Your task to perform on an android device: toggle translation in the chrome app Image 0: 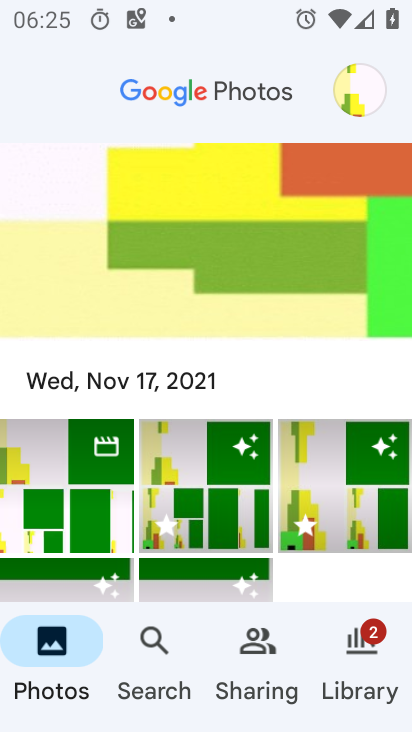
Step 0: press home button
Your task to perform on an android device: toggle translation in the chrome app Image 1: 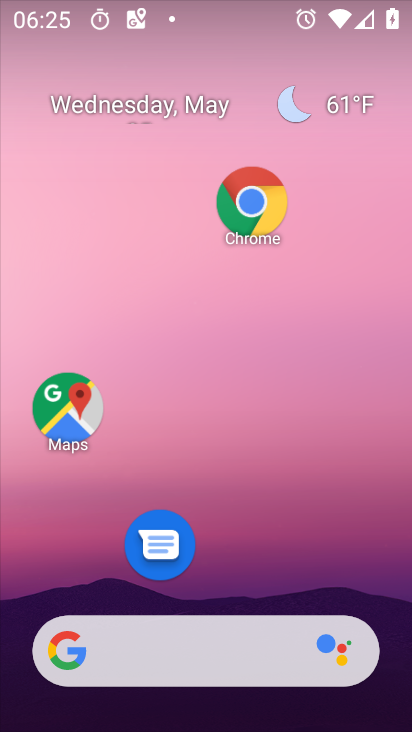
Step 1: drag from (150, 615) to (173, 275)
Your task to perform on an android device: toggle translation in the chrome app Image 2: 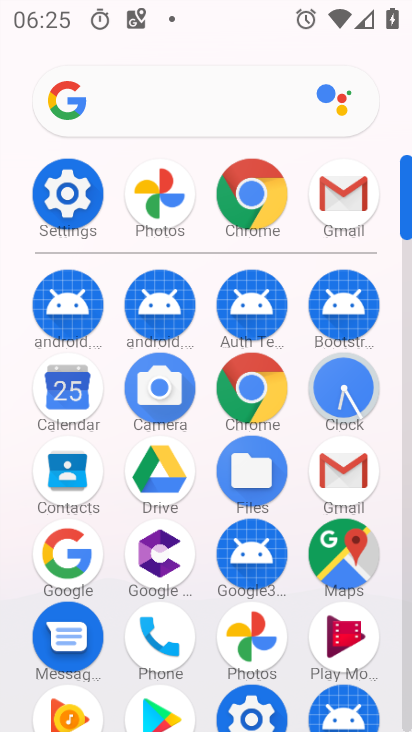
Step 2: click (245, 414)
Your task to perform on an android device: toggle translation in the chrome app Image 3: 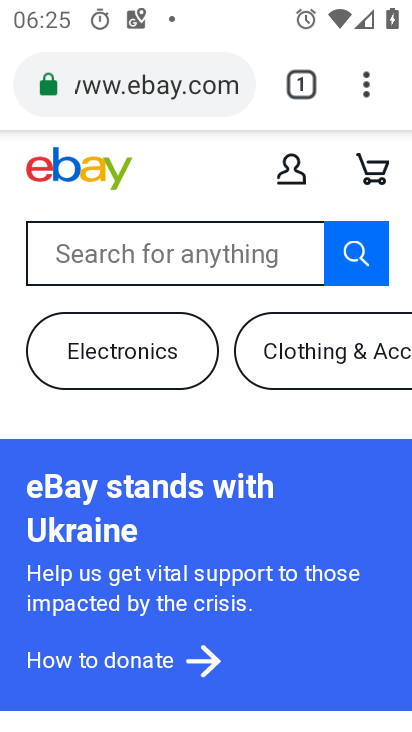
Step 3: click (366, 93)
Your task to perform on an android device: toggle translation in the chrome app Image 4: 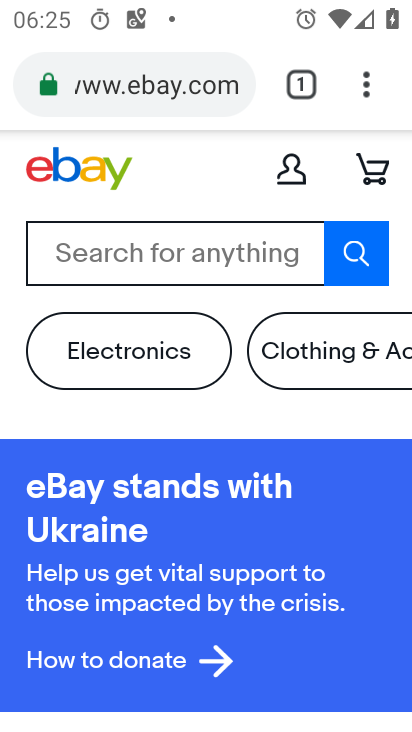
Step 4: click (364, 76)
Your task to perform on an android device: toggle translation in the chrome app Image 5: 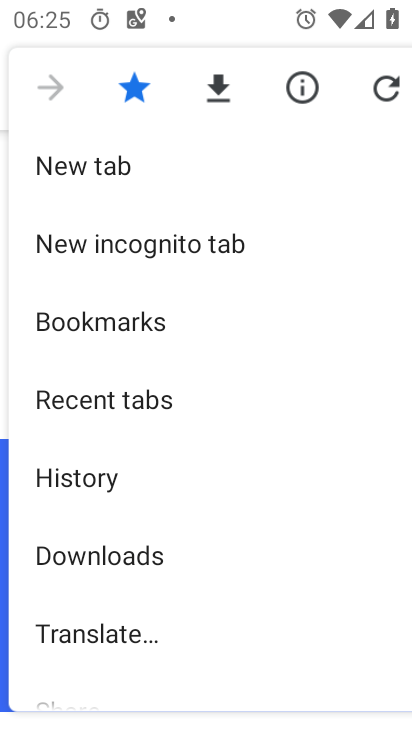
Step 5: drag from (188, 660) to (216, 295)
Your task to perform on an android device: toggle translation in the chrome app Image 6: 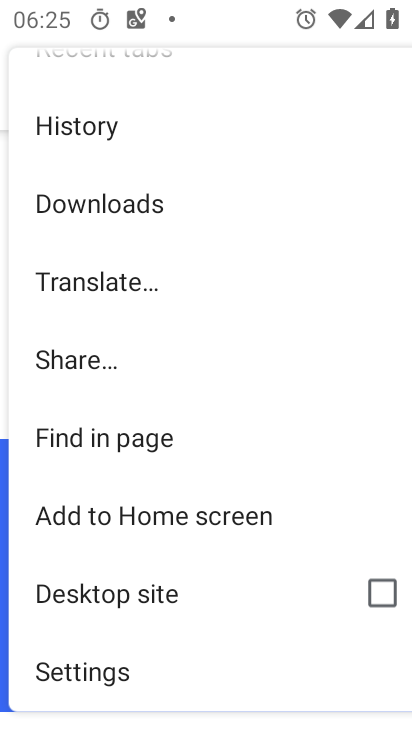
Step 6: click (117, 672)
Your task to perform on an android device: toggle translation in the chrome app Image 7: 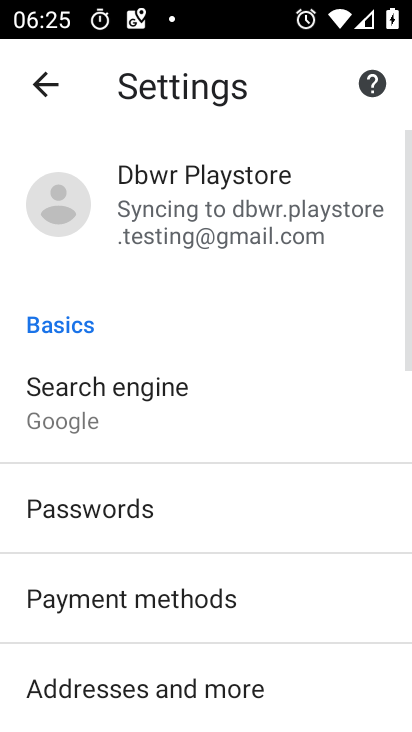
Step 7: drag from (154, 697) to (200, 323)
Your task to perform on an android device: toggle translation in the chrome app Image 8: 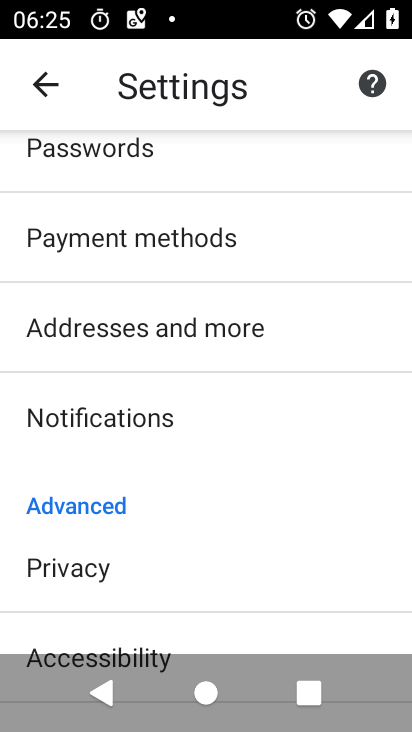
Step 8: drag from (160, 623) to (172, 364)
Your task to perform on an android device: toggle translation in the chrome app Image 9: 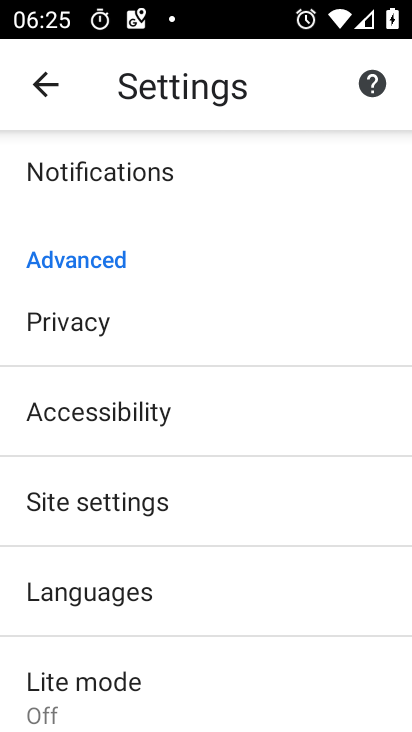
Step 9: click (67, 510)
Your task to perform on an android device: toggle translation in the chrome app Image 10: 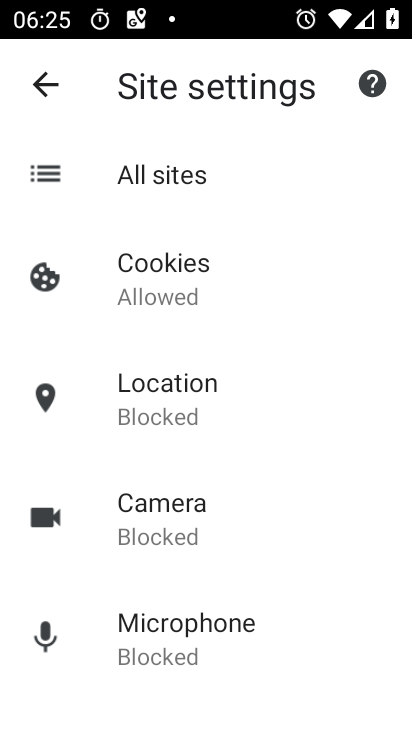
Step 10: drag from (172, 613) to (204, 348)
Your task to perform on an android device: toggle translation in the chrome app Image 11: 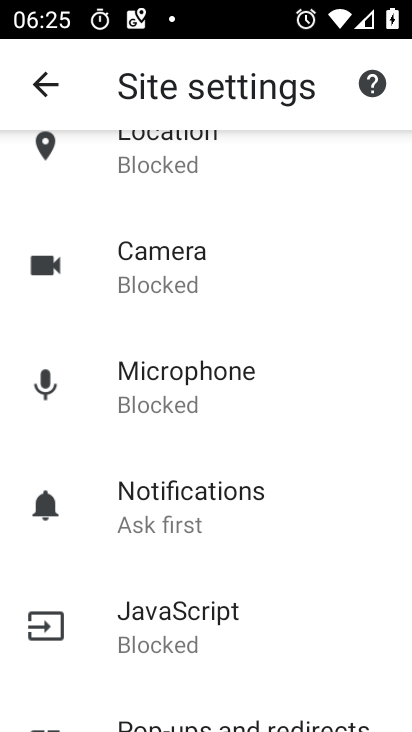
Step 11: click (51, 88)
Your task to perform on an android device: toggle translation in the chrome app Image 12: 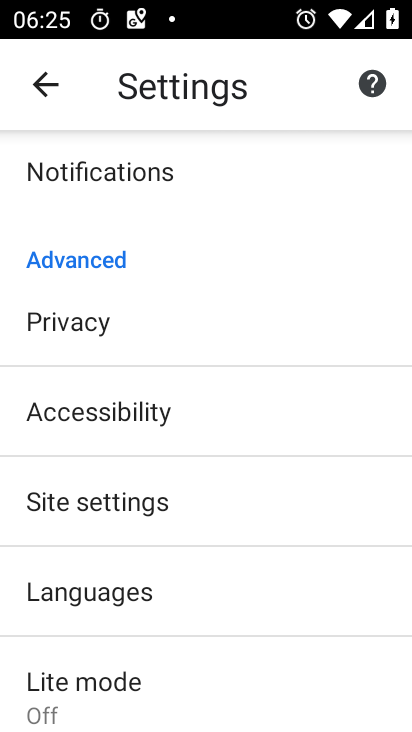
Step 12: click (102, 580)
Your task to perform on an android device: toggle translation in the chrome app Image 13: 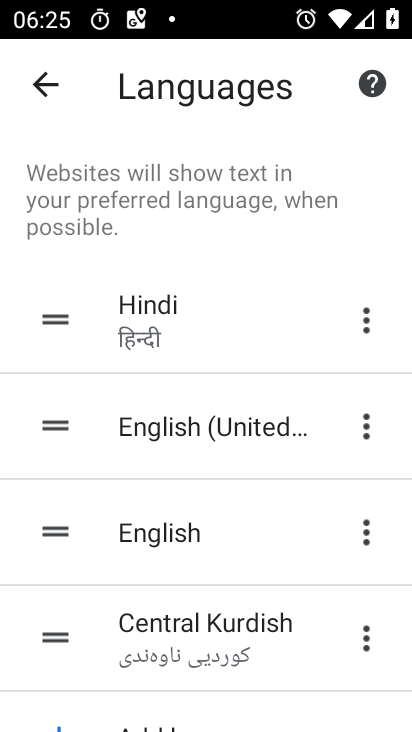
Step 13: drag from (245, 661) to (267, 309)
Your task to perform on an android device: toggle translation in the chrome app Image 14: 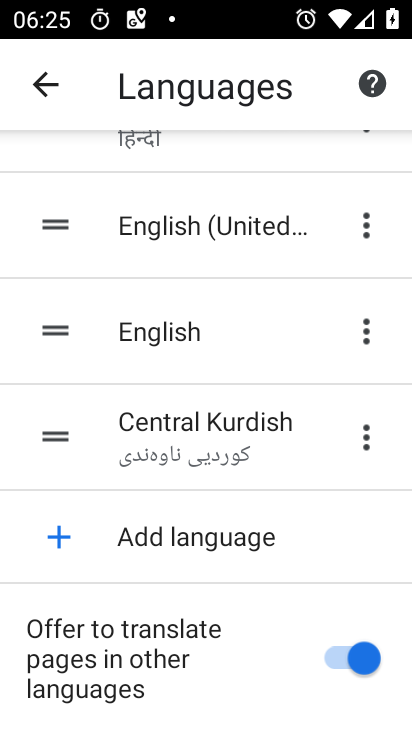
Step 14: click (335, 658)
Your task to perform on an android device: toggle translation in the chrome app Image 15: 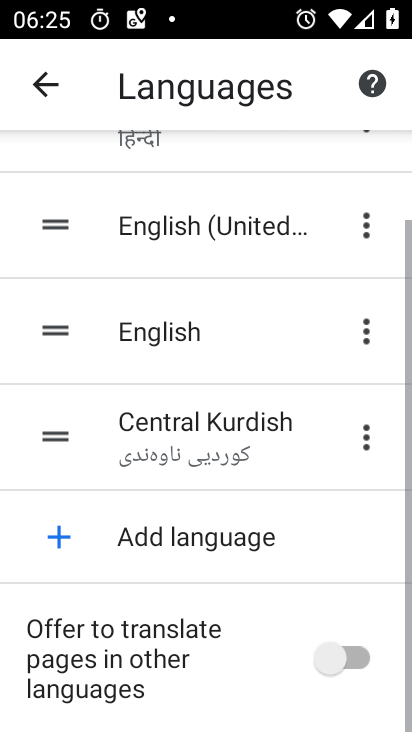
Step 15: task complete